Your task to perform on an android device: Show me the alarms in the clock app Image 0: 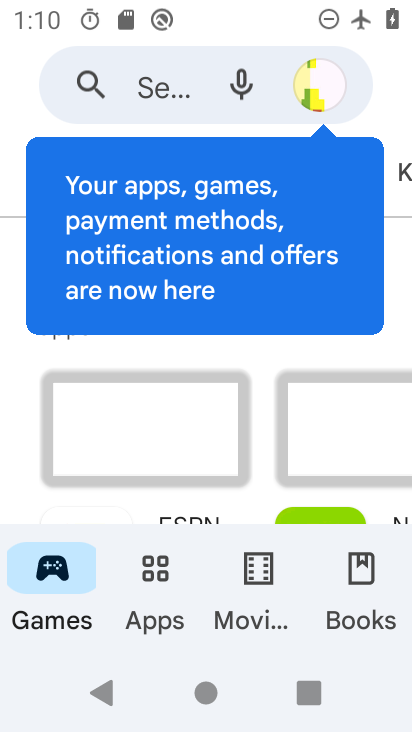
Step 0: press home button
Your task to perform on an android device: Show me the alarms in the clock app Image 1: 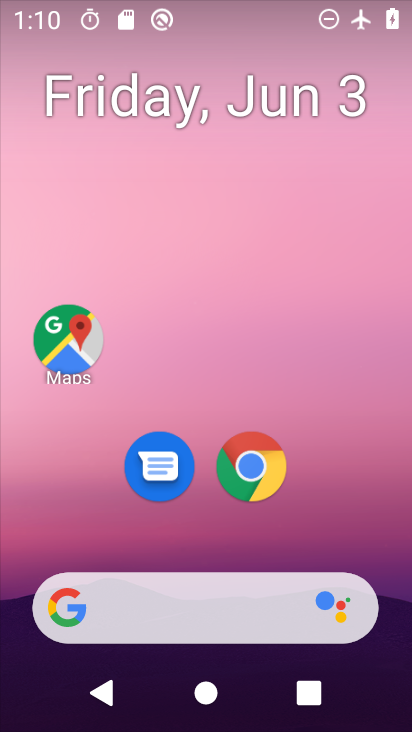
Step 1: drag from (190, 544) to (194, 195)
Your task to perform on an android device: Show me the alarms in the clock app Image 2: 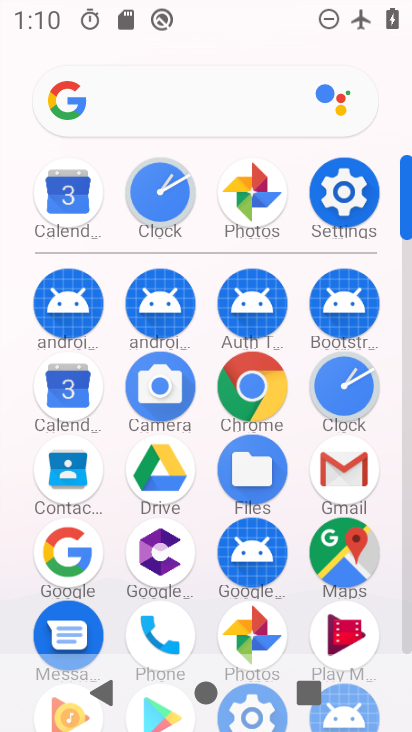
Step 2: click (366, 390)
Your task to perform on an android device: Show me the alarms in the clock app Image 3: 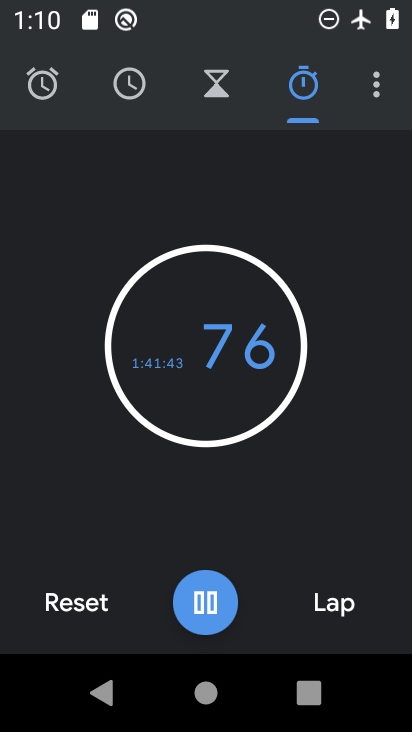
Step 3: click (48, 77)
Your task to perform on an android device: Show me the alarms in the clock app Image 4: 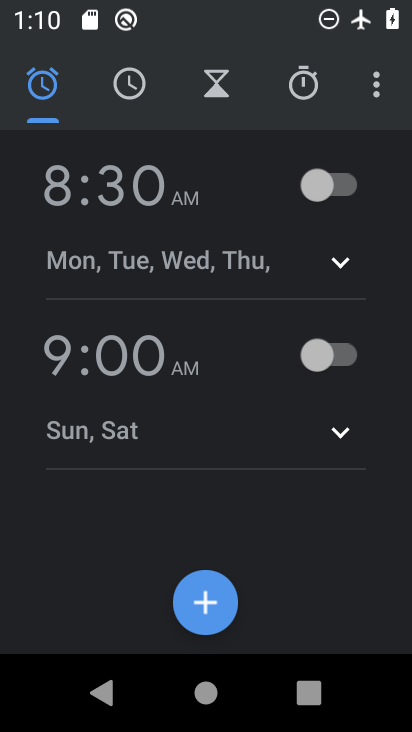
Step 4: task complete